Your task to perform on an android device: Open Chrome and go to settings Image 0: 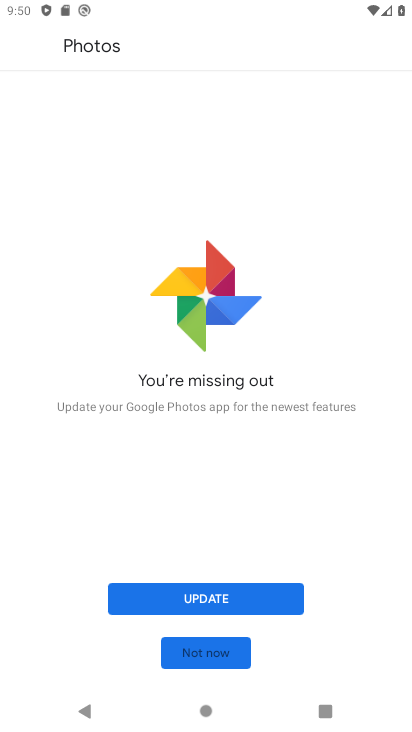
Step 0: press home button
Your task to perform on an android device: Open Chrome and go to settings Image 1: 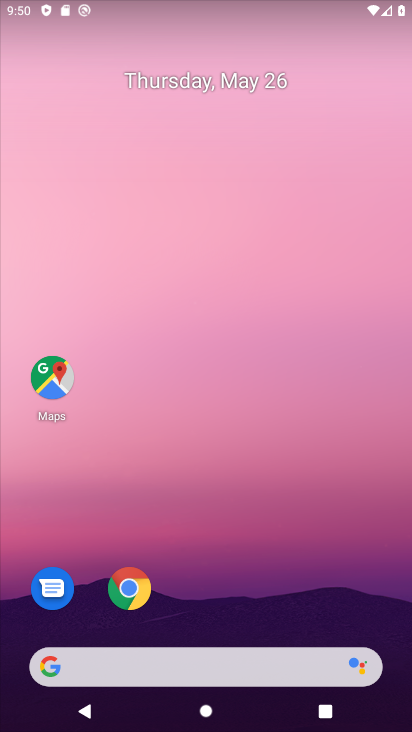
Step 1: click (129, 584)
Your task to perform on an android device: Open Chrome and go to settings Image 2: 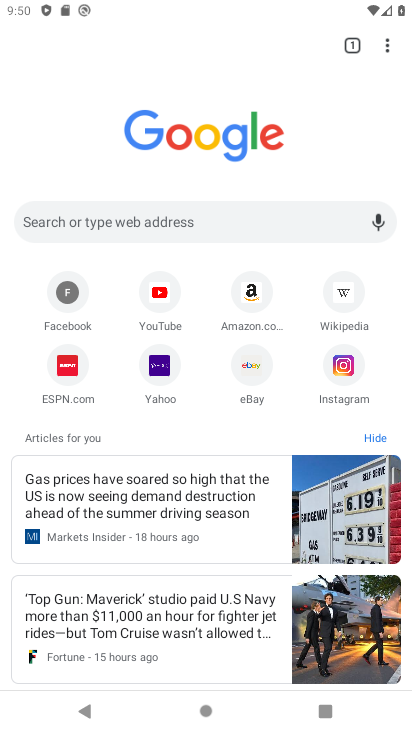
Step 2: click (388, 50)
Your task to perform on an android device: Open Chrome and go to settings Image 3: 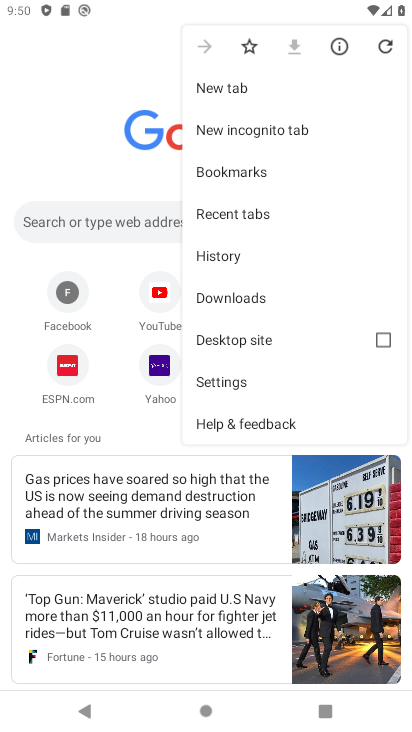
Step 3: click (209, 383)
Your task to perform on an android device: Open Chrome and go to settings Image 4: 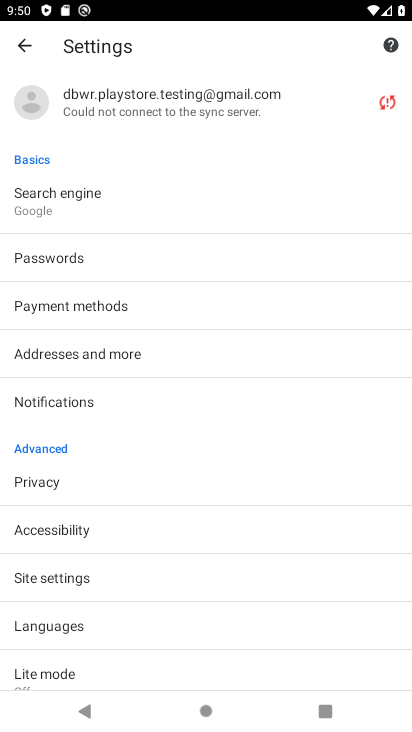
Step 4: task complete